Your task to perform on an android device: Open CNN.com Image 0: 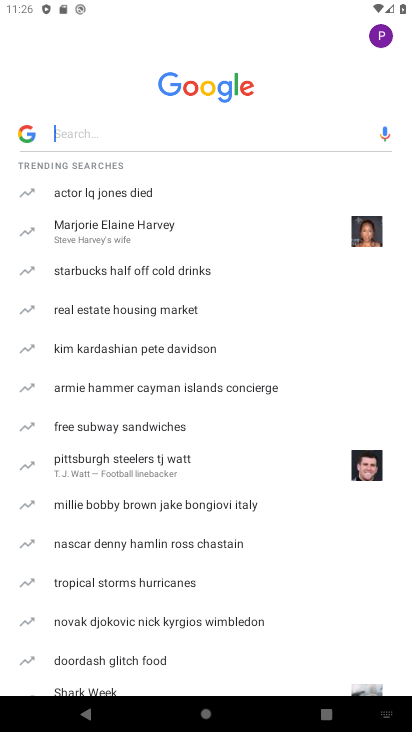
Step 0: type "cnn.com"
Your task to perform on an android device: Open CNN.com Image 1: 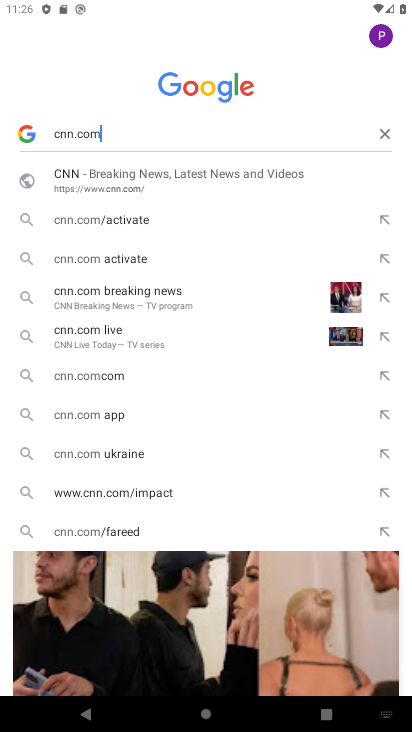
Step 1: click (186, 175)
Your task to perform on an android device: Open CNN.com Image 2: 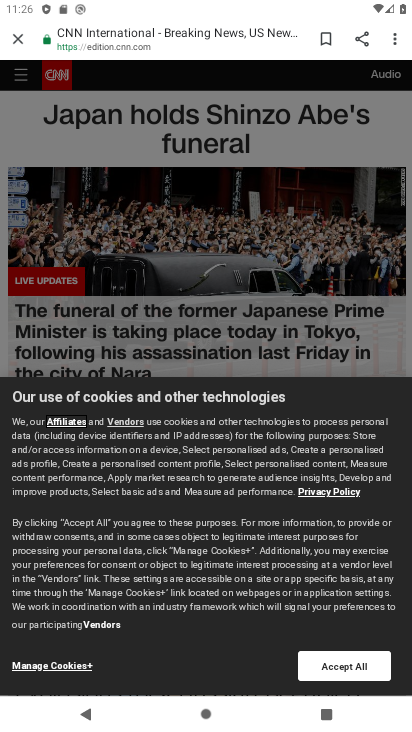
Step 2: task complete